Your task to perform on an android device: star an email in the gmail app Image 0: 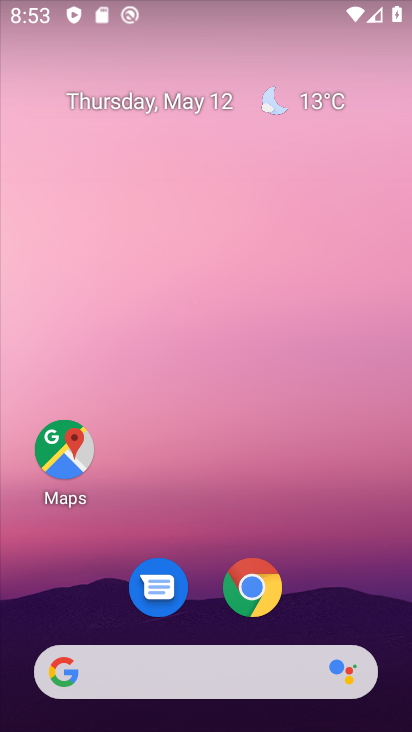
Step 0: drag from (366, 564) to (282, 33)
Your task to perform on an android device: star an email in the gmail app Image 1: 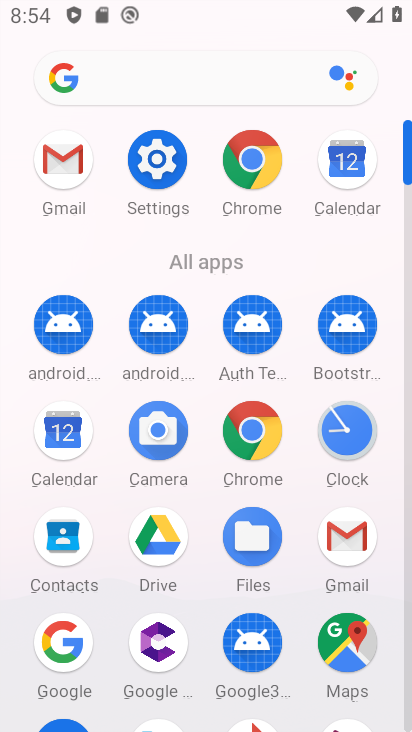
Step 1: click (68, 155)
Your task to perform on an android device: star an email in the gmail app Image 2: 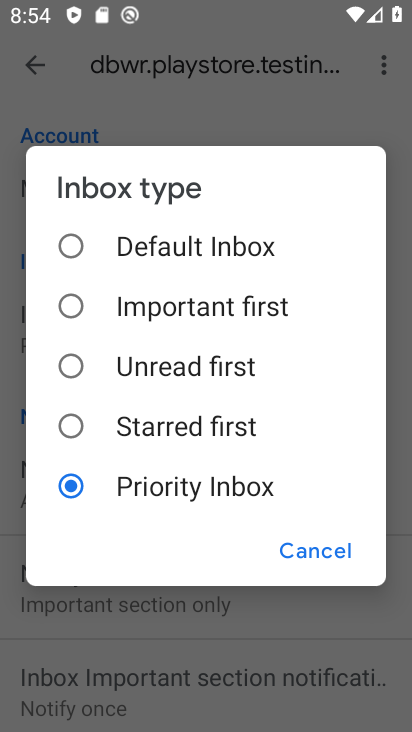
Step 2: click (345, 568)
Your task to perform on an android device: star an email in the gmail app Image 3: 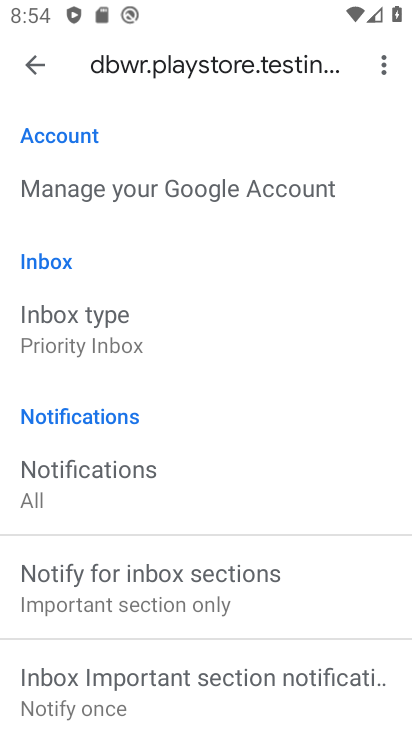
Step 3: click (26, 75)
Your task to perform on an android device: star an email in the gmail app Image 4: 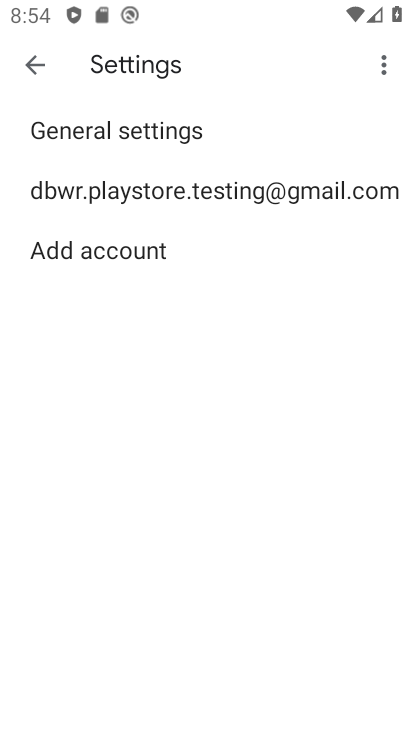
Step 4: click (26, 75)
Your task to perform on an android device: star an email in the gmail app Image 5: 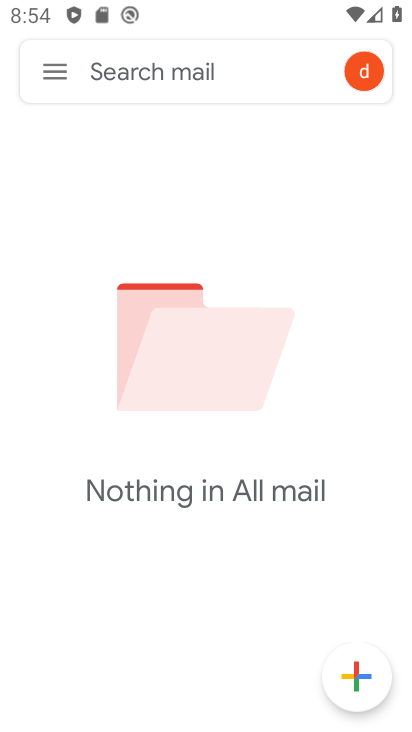
Step 5: task complete